Your task to perform on an android device: toggle improve location accuracy Image 0: 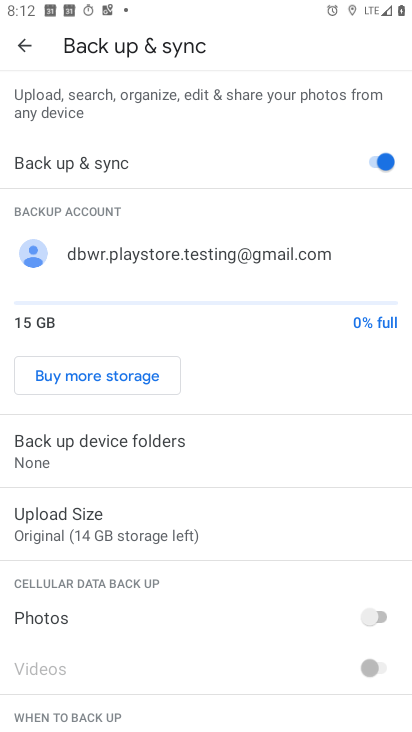
Step 0: press home button
Your task to perform on an android device: toggle improve location accuracy Image 1: 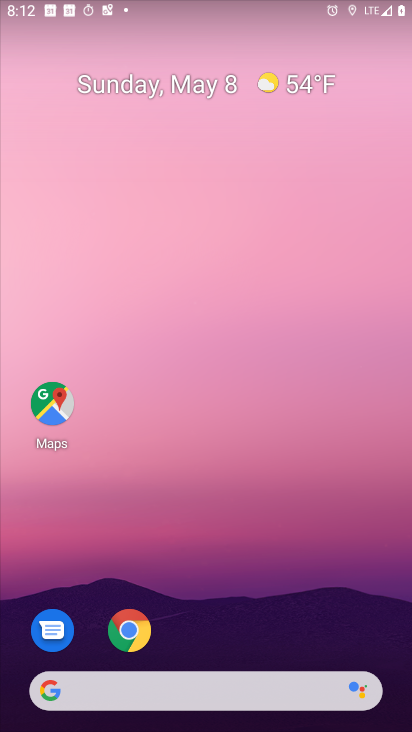
Step 1: drag from (233, 663) to (200, 46)
Your task to perform on an android device: toggle improve location accuracy Image 2: 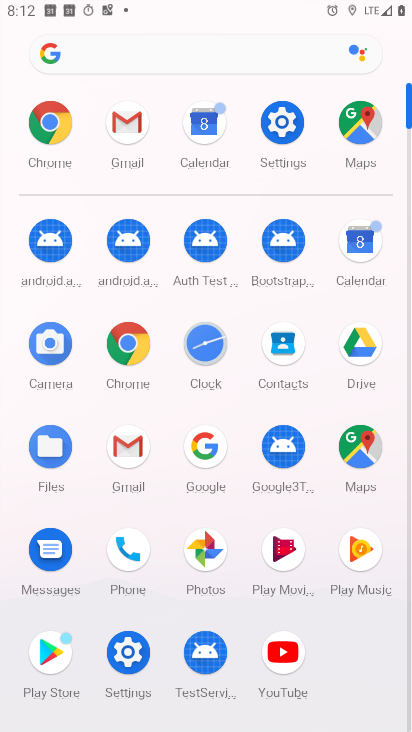
Step 2: click (129, 662)
Your task to perform on an android device: toggle improve location accuracy Image 3: 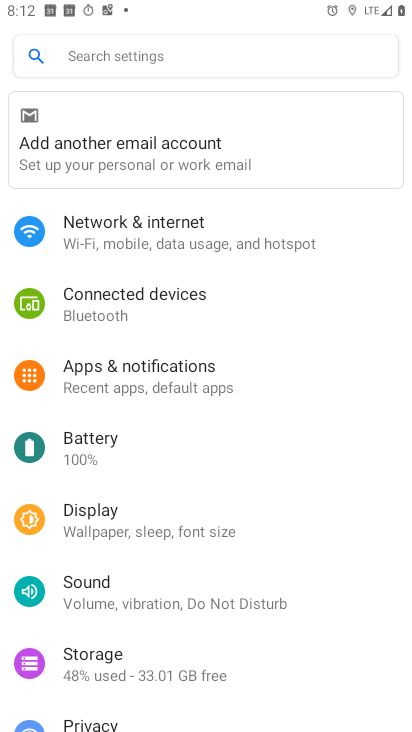
Step 3: drag from (179, 691) to (139, 199)
Your task to perform on an android device: toggle improve location accuracy Image 4: 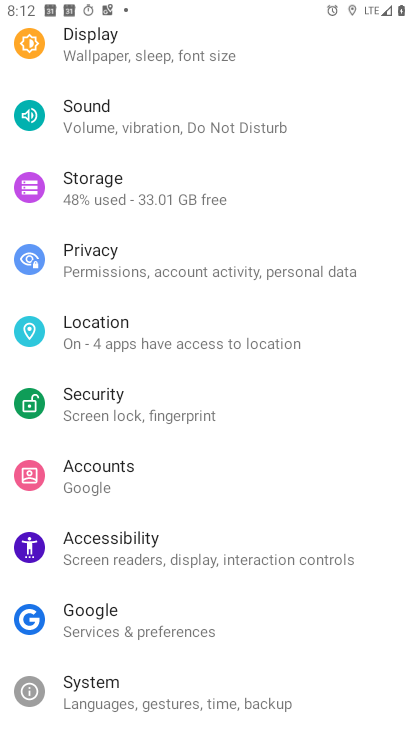
Step 4: click (109, 334)
Your task to perform on an android device: toggle improve location accuracy Image 5: 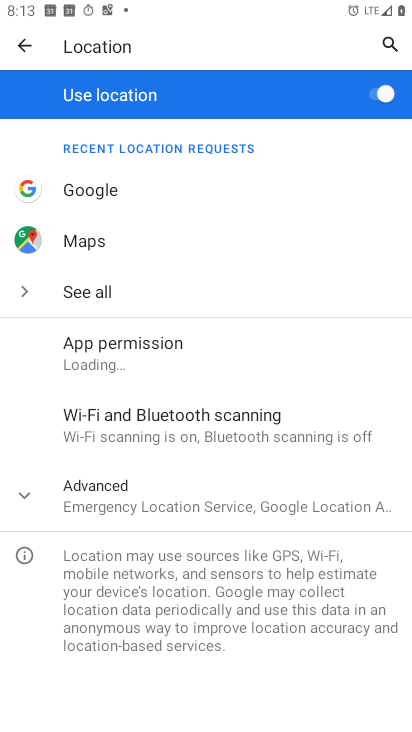
Step 5: click (136, 500)
Your task to perform on an android device: toggle improve location accuracy Image 6: 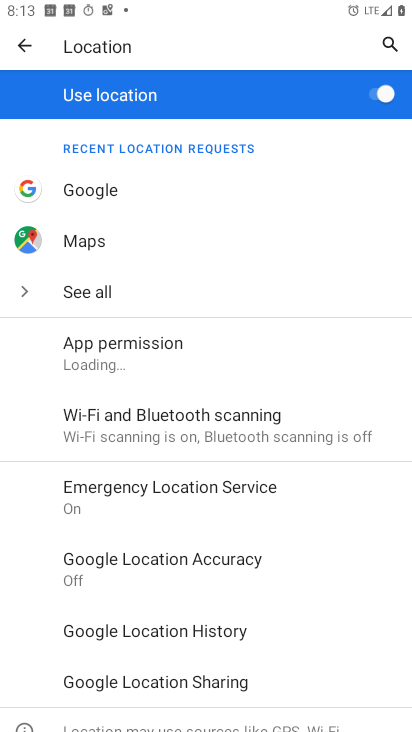
Step 6: click (161, 545)
Your task to perform on an android device: toggle improve location accuracy Image 7: 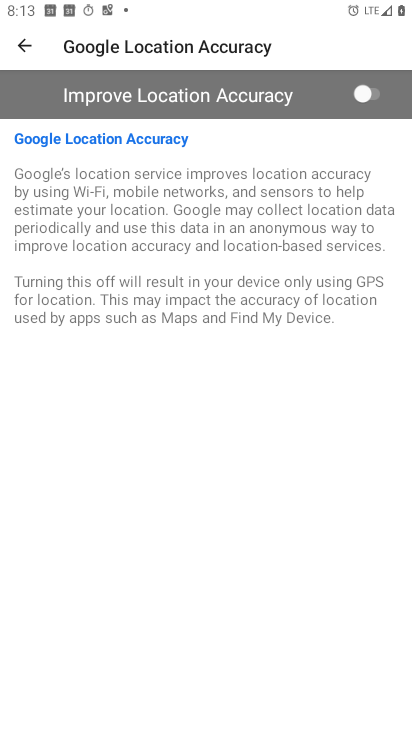
Step 7: click (384, 93)
Your task to perform on an android device: toggle improve location accuracy Image 8: 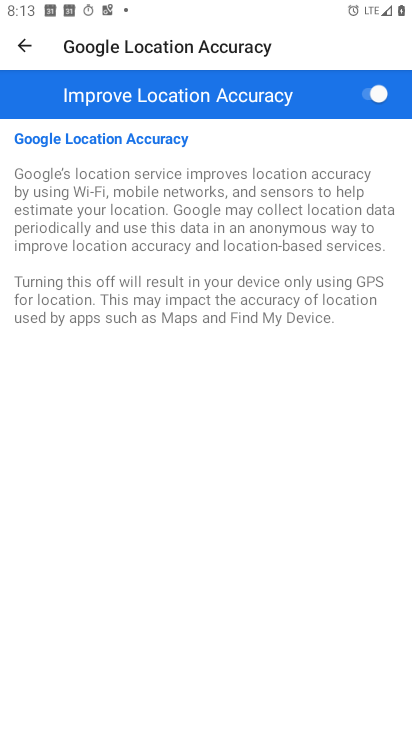
Step 8: task complete